Your task to perform on an android device: Open privacy settings Image 0: 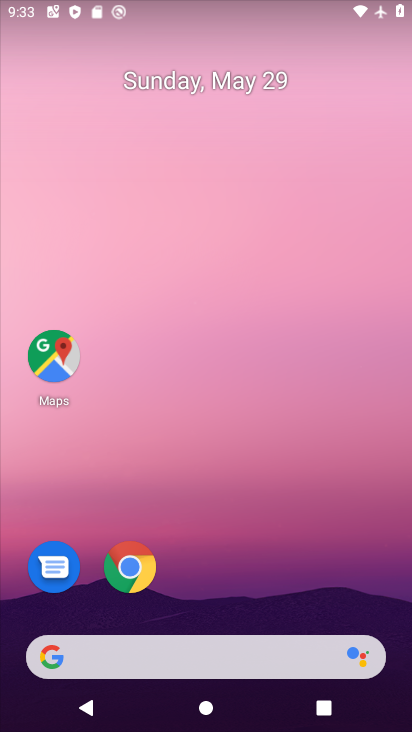
Step 0: drag from (375, 610) to (356, 196)
Your task to perform on an android device: Open privacy settings Image 1: 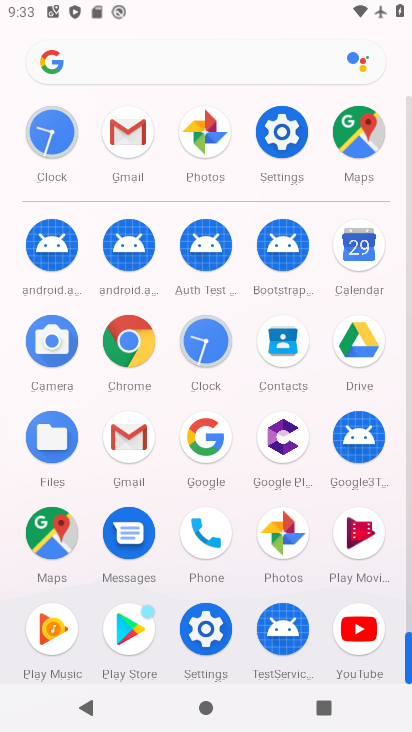
Step 1: click (205, 629)
Your task to perform on an android device: Open privacy settings Image 2: 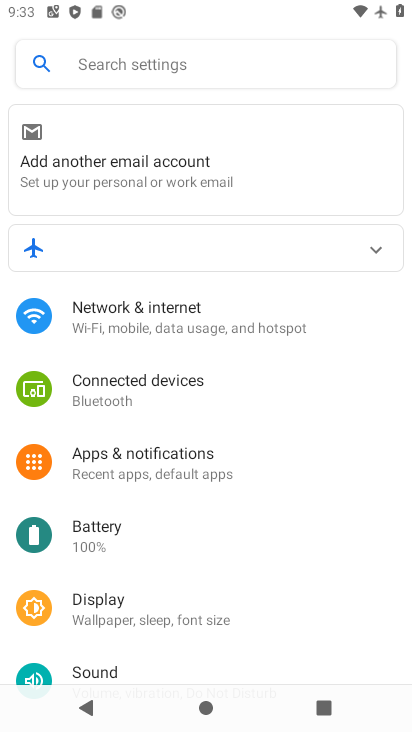
Step 2: drag from (330, 642) to (277, 170)
Your task to perform on an android device: Open privacy settings Image 3: 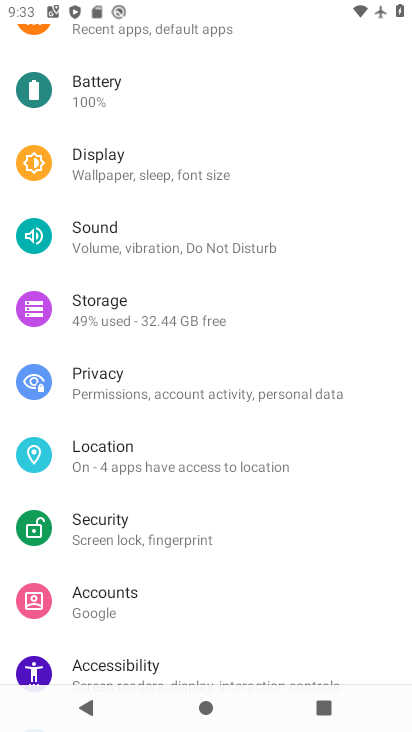
Step 3: click (100, 372)
Your task to perform on an android device: Open privacy settings Image 4: 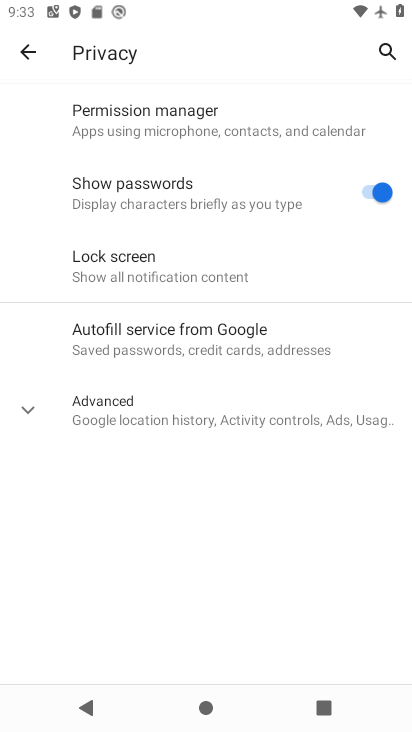
Step 4: click (25, 414)
Your task to perform on an android device: Open privacy settings Image 5: 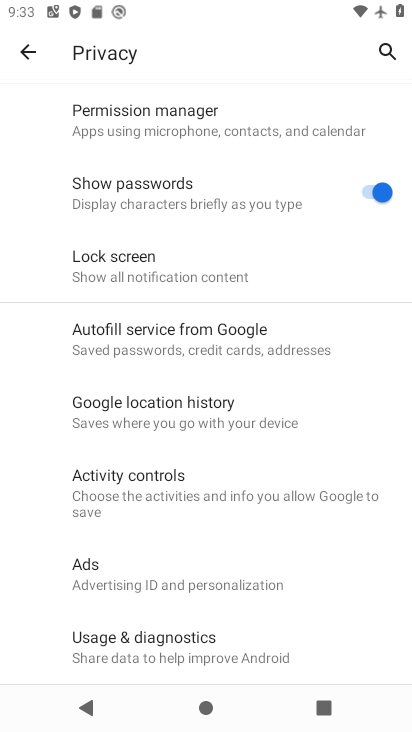
Step 5: task complete